Your task to perform on an android device: change notification settings in the gmail app Image 0: 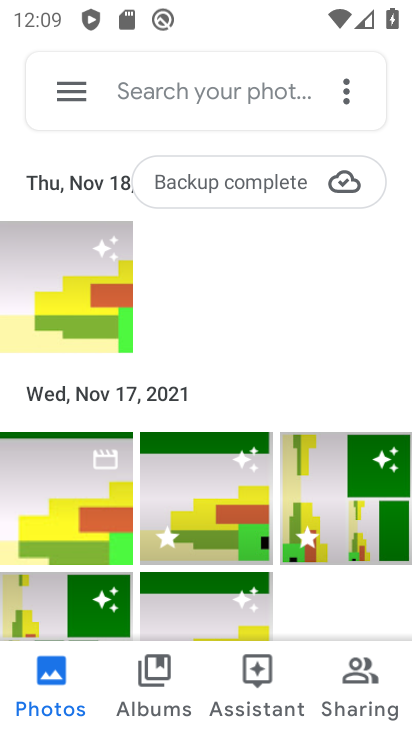
Step 0: press home button
Your task to perform on an android device: change notification settings in the gmail app Image 1: 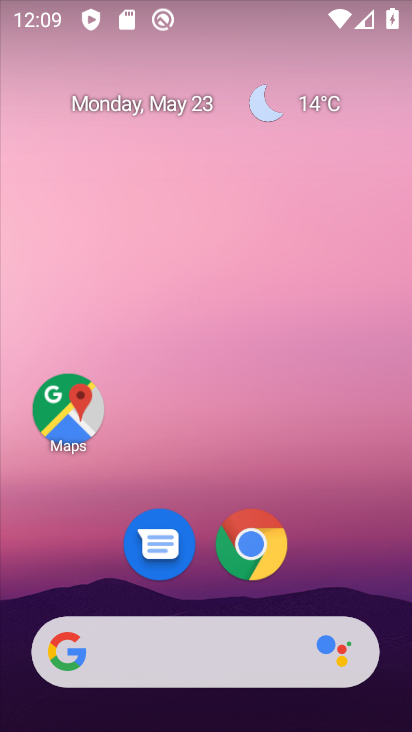
Step 1: drag from (346, 514) to (284, 11)
Your task to perform on an android device: change notification settings in the gmail app Image 2: 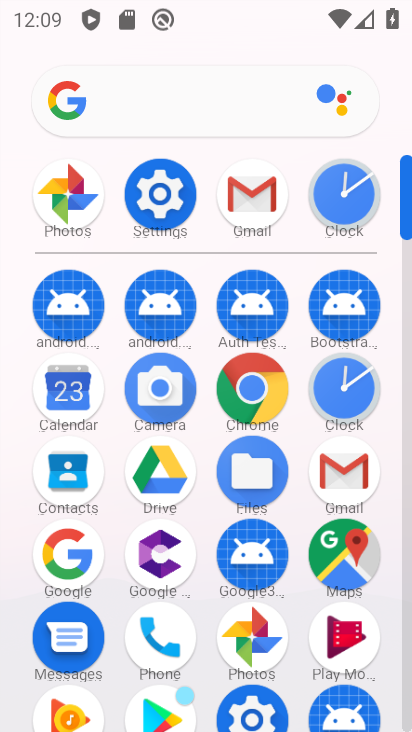
Step 2: click (157, 189)
Your task to perform on an android device: change notification settings in the gmail app Image 3: 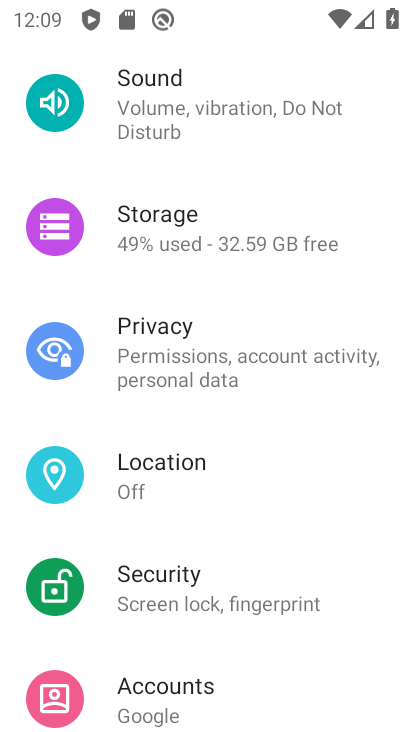
Step 3: press home button
Your task to perform on an android device: change notification settings in the gmail app Image 4: 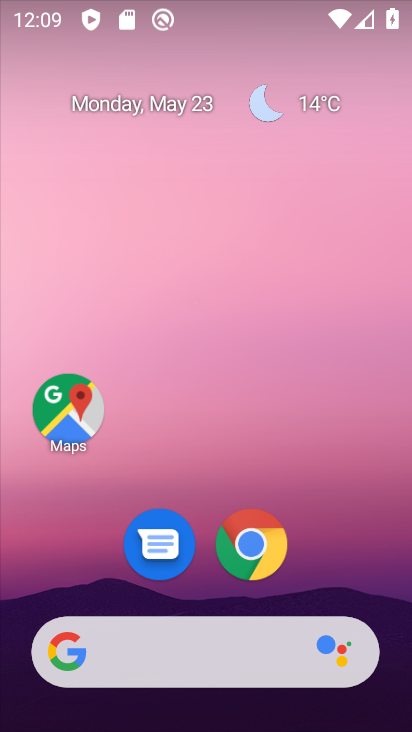
Step 4: drag from (275, 424) to (250, 2)
Your task to perform on an android device: change notification settings in the gmail app Image 5: 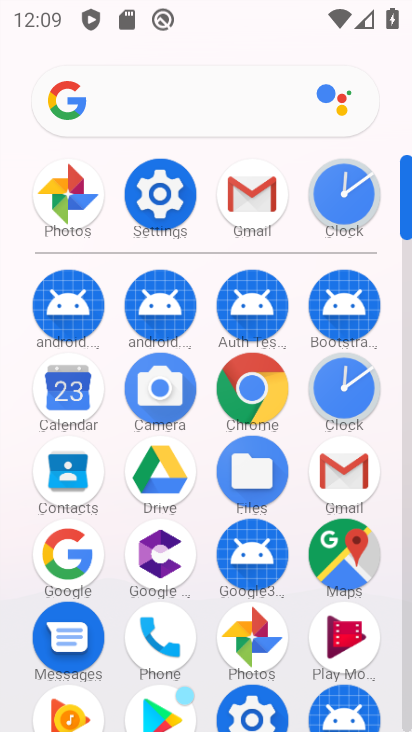
Step 5: click (246, 202)
Your task to perform on an android device: change notification settings in the gmail app Image 6: 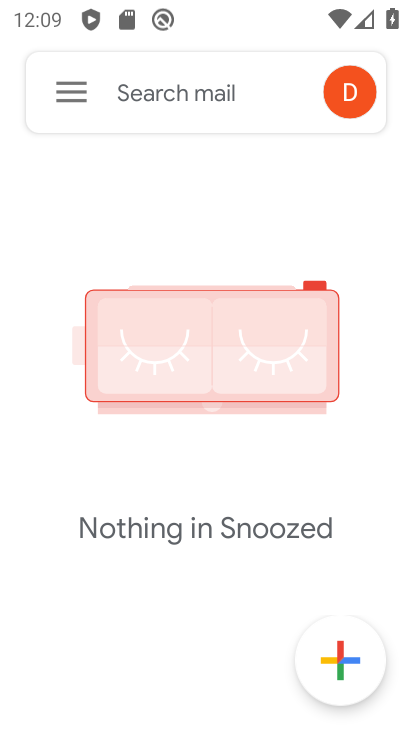
Step 6: click (68, 97)
Your task to perform on an android device: change notification settings in the gmail app Image 7: 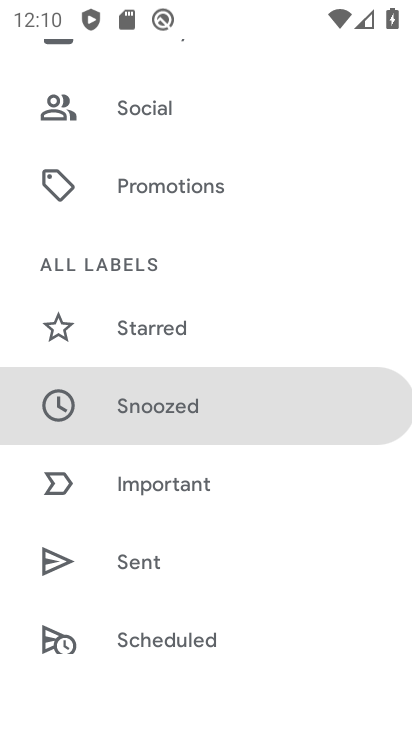
Step 7: drag from (167, 633) to (177, 134)
Your task to perform on an android device: change notification settings in the gmail app Image 8: 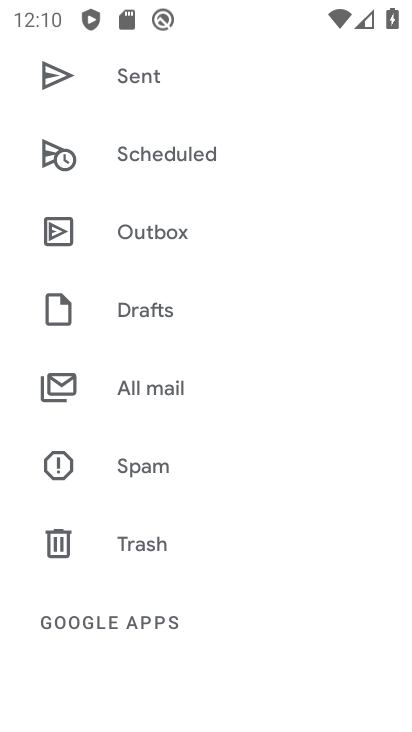
Step 8: drag from (154, 606) to (181, 207)
Your task to perform on an android device: change notification settings in the gmail app Image 9: 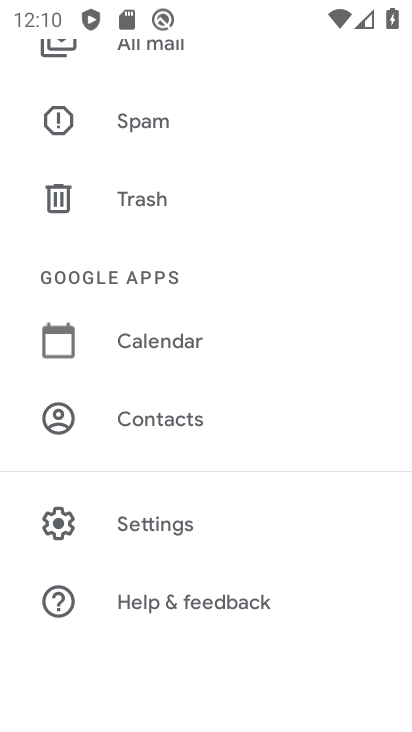
Step 9: click (163, 523)
Your task to perform on an android device: change notification settings in the gmail app Image 10: 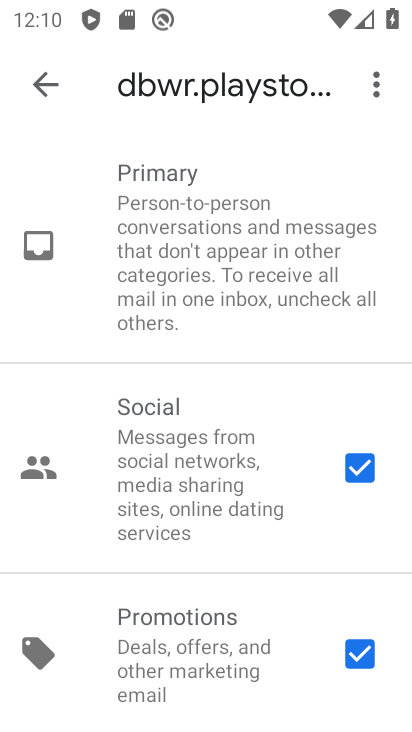
Step 10: drag from (228, 608) to (348, 730)
Your task to perform on an android device: change notification settings in the gmail app Image 11: 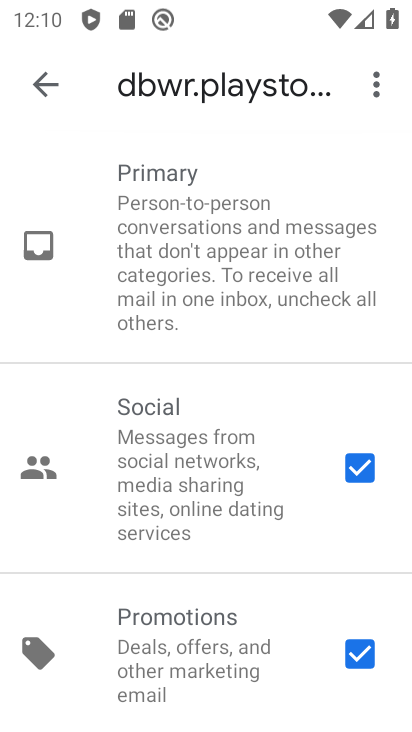
Step 11: drag from (279, 333) to (320, 686)
Your task to perform on an android device: change notification settings in the gmail app Image 12: 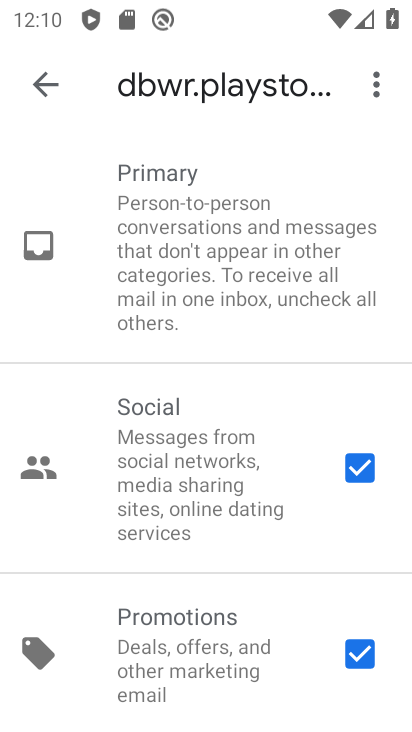
Step 12: drag from (302, 646) to (243, 168)
Your task to perform on an android device: change notification settings in the gmail app Image 13: 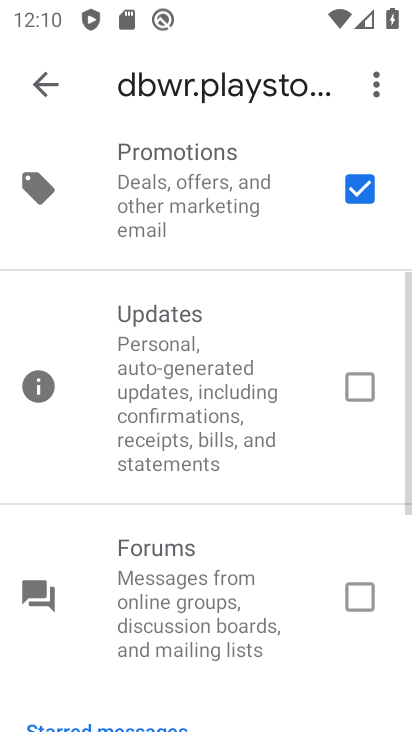
Step 13: drag from (215, 545) to (189, 220)
Your task to perform on an android device: change notification settings in the gmail app Image 14: 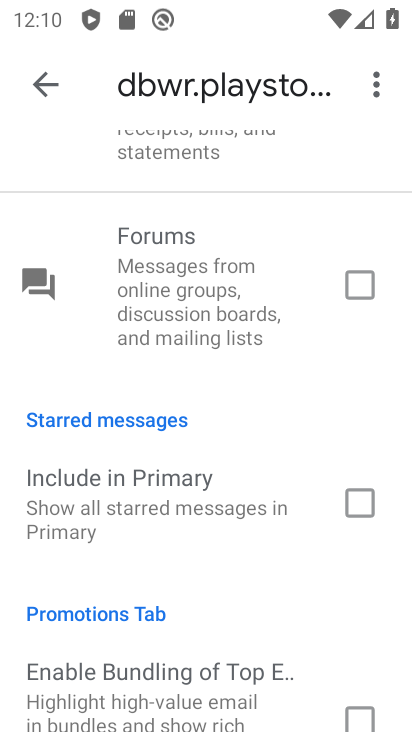
Step 14: click (36, 78)
Your task to perform on an android device: change notification settings in the gmail app Image 15: 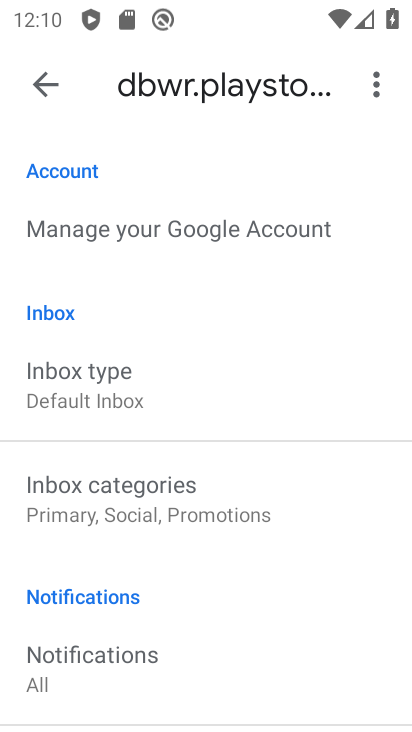
Step 15: drag from (123, 666) to (120, 117)
Your task to perform on an android device: change notification settings in the gmail app Image 16: 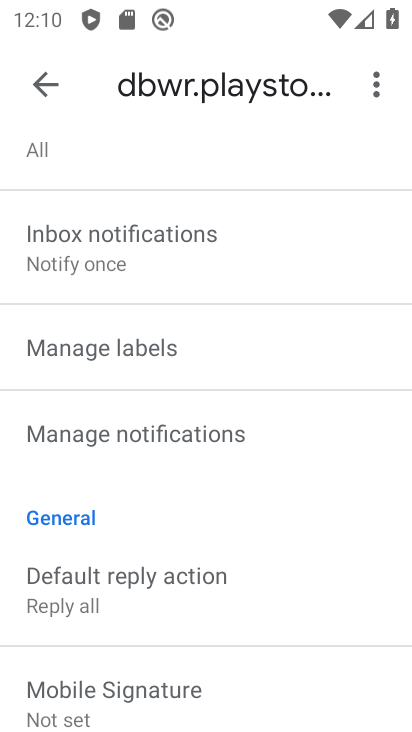
Step 16: click (110, 437)
Your task to perform on an android device: change notification settings in the gmail app Image 17: 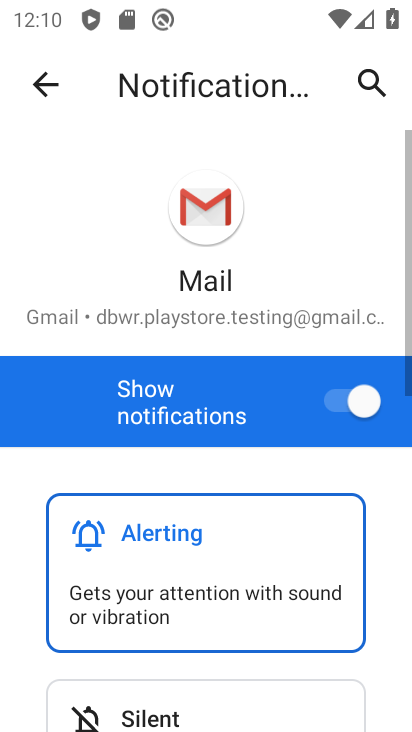
Step 17: click (370, 394)
Your task to perform on an android device: change notification settings in the gmail app Image 18: 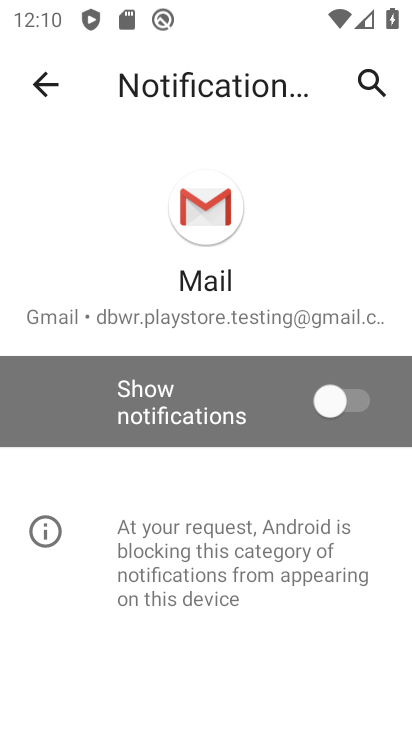
Step 18: task complete